Your task to perform on an android device: When is my next meeting? Image 0: 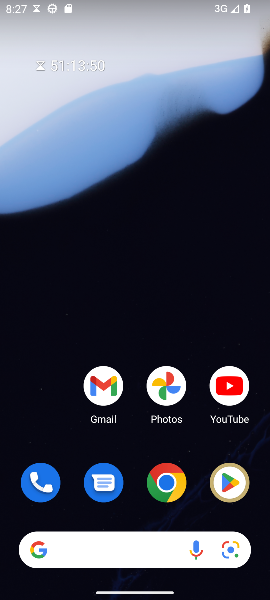
Step 0: drag from (30, 545) to (147, 89)
Your task to perform on an android device: When is my next meeting? Image 1: 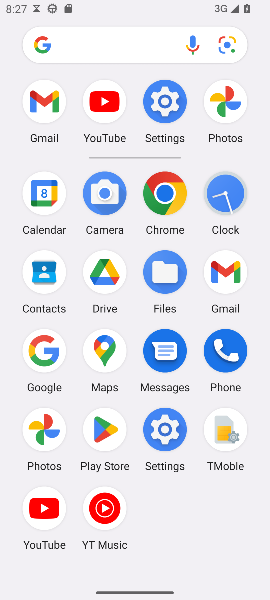
Step 1: click (39, 203)
Your task to perform on an android device: When is my next meeting? Image 2: 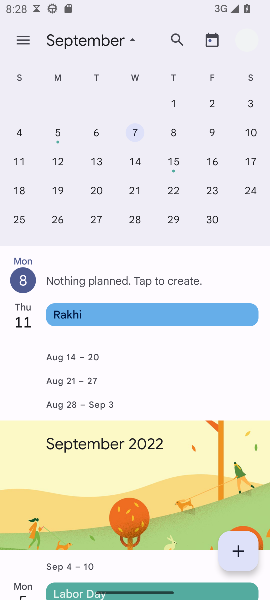
Step 2: task complete